Your task to perform on an android device: open sync settings in chrome Image 0: 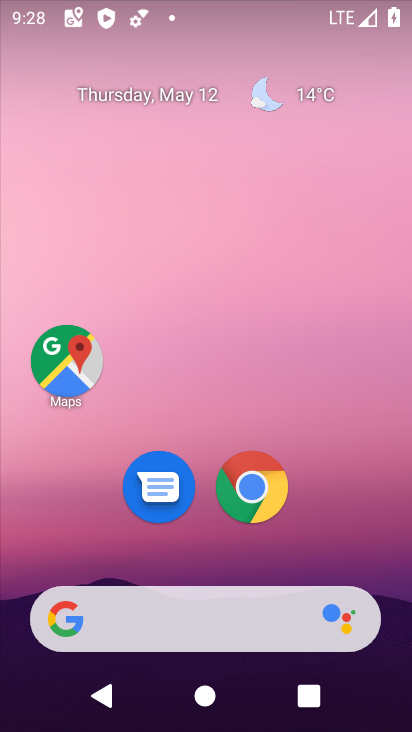
Step 0: click (248, 484)
Your task to perform on an android device: open sync settings in chrome Image 1: 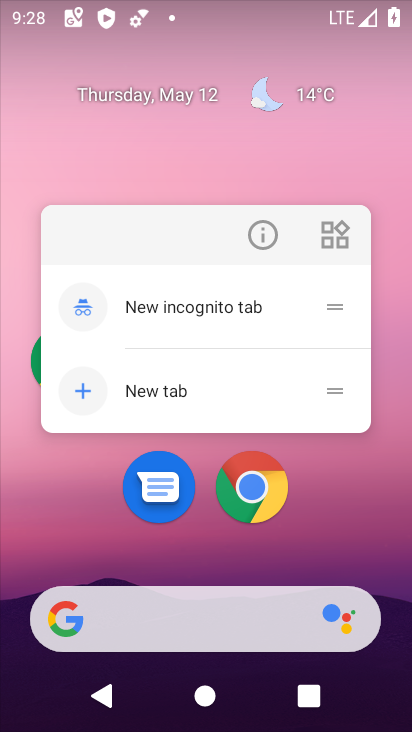
Step 1: click (241, 461)
Your task to perform on an android device: open sync settings in chrome Image 2: 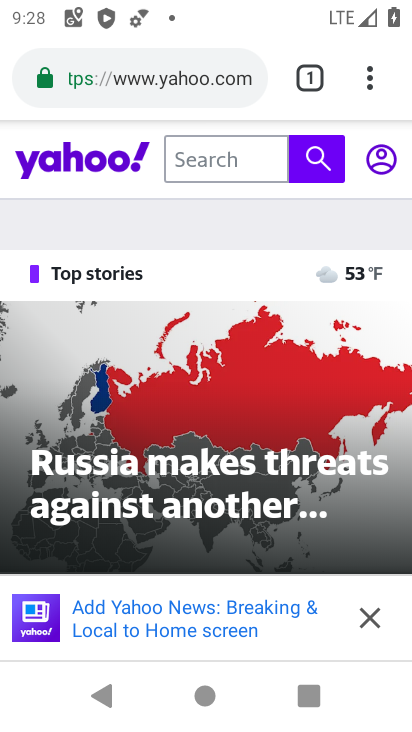
Step 2: click (357, 86)
Your task to perform on an android device: open sync settings in chrome Image 3: 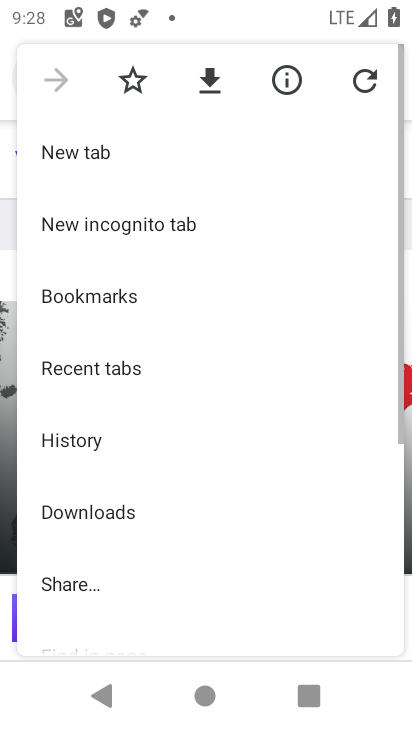
Step 3: drag from (140, 605) to (300, 105)
Your task to perform on an android device: open sync settings in chrome Image 4: 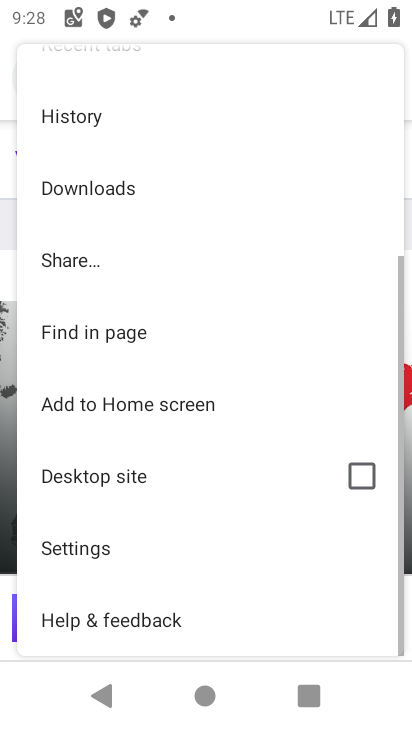
Step 4: click (125, 558)
Your task to perform on an android device: open sync settings in chrome Image 5: 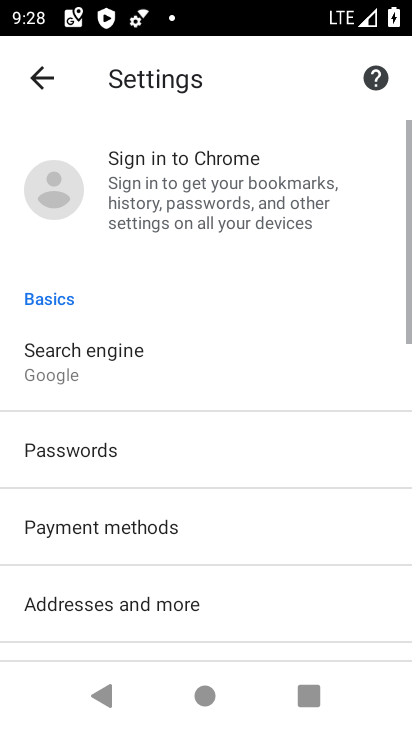
Step 5: drag from (136, 601) to (341, 174)
Your task to perform on an android device: open sync settings in chrome Image 6: 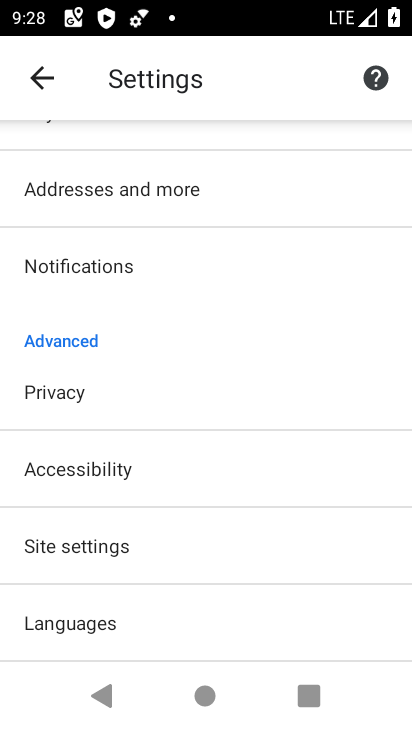
Step 6: click (125, 601)
Your task to perform on an android device: open sync settings in chrome Image 7: 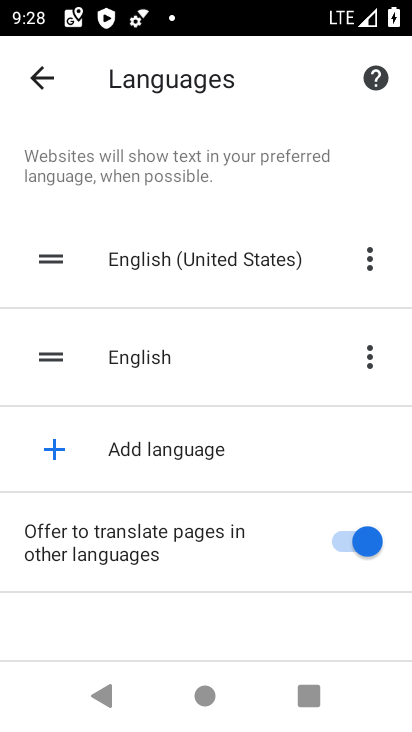
Step 7: press back button
Your task to perform on an android device: open sync settings in chrome Image 8: 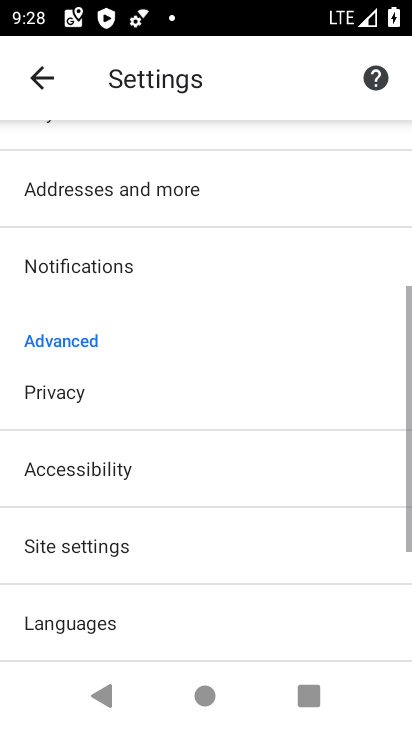
Step 8: click (162, 560)
Your task to perform on an android device: open sync settings in chrome Image 9: 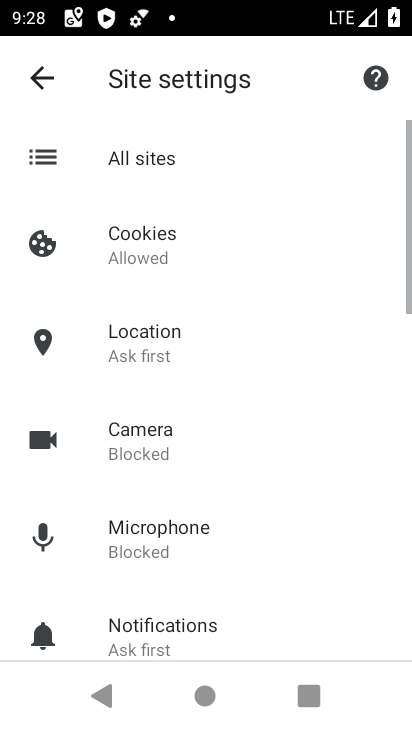
Step 9: drag from (186, 606) to (355, 128)
Your task to perform on an android device: open sync settings in chrome Image 10: 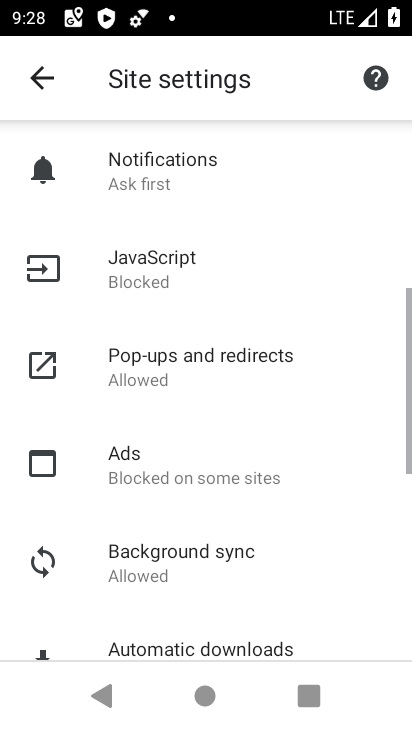
Step 10: drag from (68, 586) to (201, 406)
Your task to perform on an android device: open sync settings in chrome Image 11: 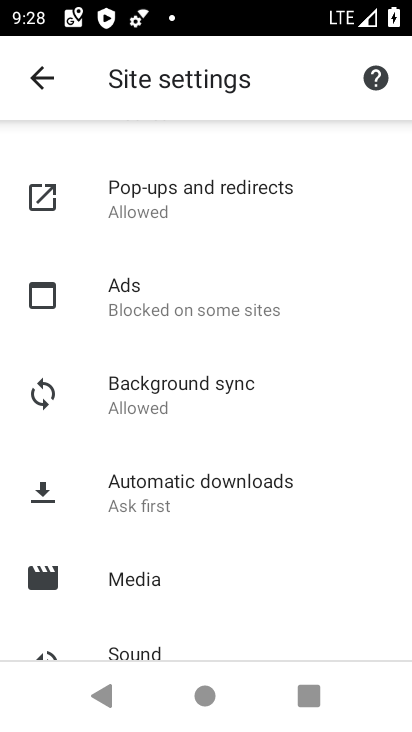
Step 11: click (173, 387)
Your task to perform on an android device: open sync settings in chrome Image 12: 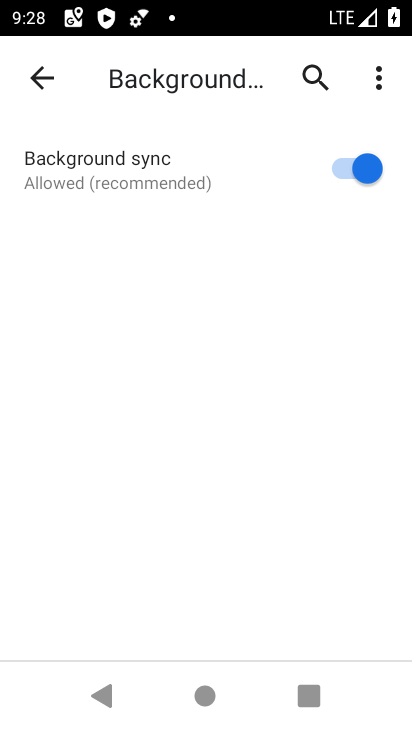
Step 12: task complete